Your task to perform on an android device: open chrome and create a bookmark for the current page Image 0: 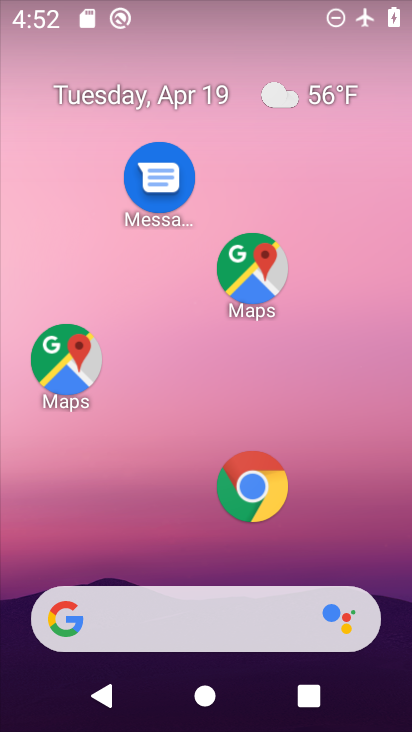
Step 0: drag from (317, 482) to (321, 77)
Your task to perform on an android device: open chrome and create a bookmark for the current page Image 1: 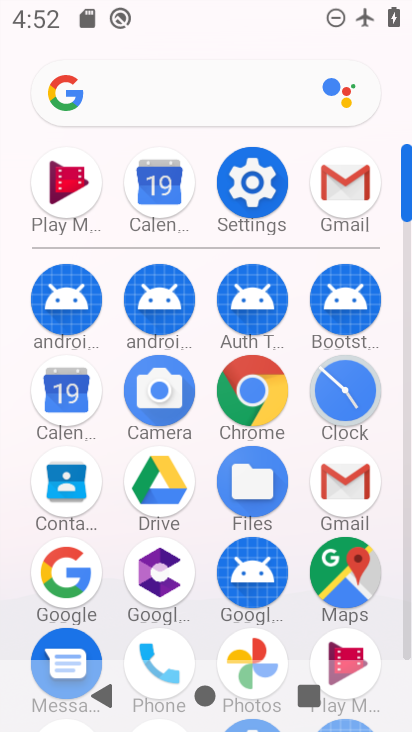
Step 1: click (261, 198)
Your task to perform on an android device: open chrome and create a bookmark for the current page Image 2: 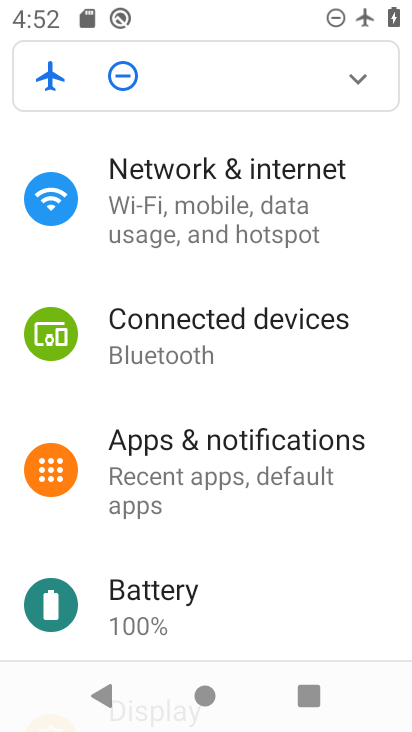
Step 2: press home button
Your task to perform on an android device: open chrome and create a bookmark for the current page Image 3: 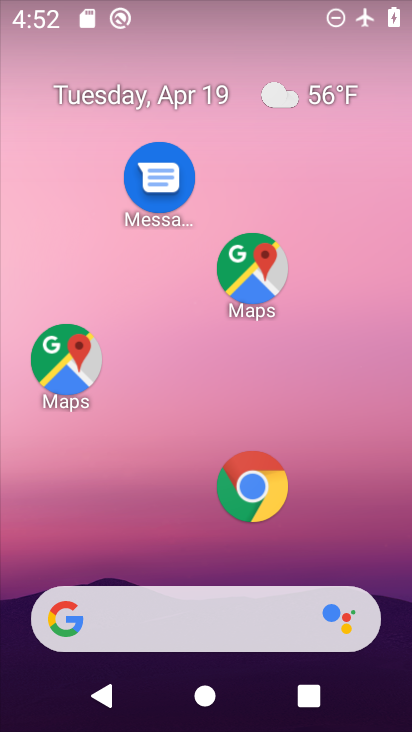
Step 3: click (256, 500)
Your task to perform on an android device: open chrome and create a bookmark for the current page Image 4: 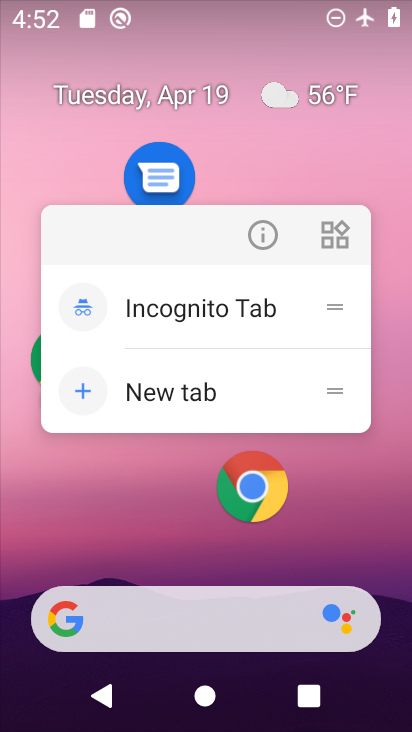
Step 4: click (268, 235)
Your task to perform on an android device: open chrome and create a bookmark for the current page Image 5: 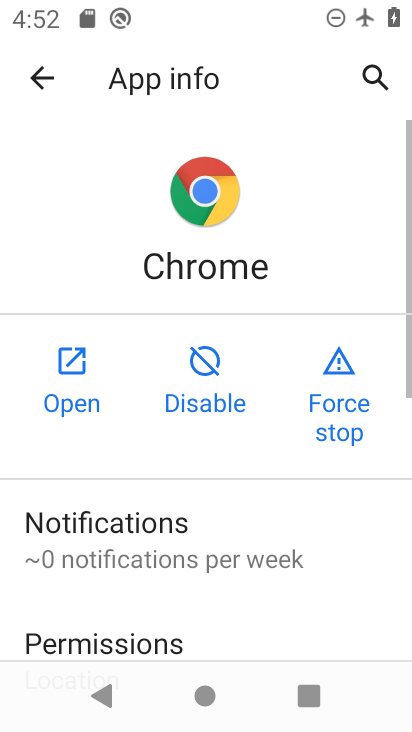
Step 5: click (78, 388)
Your task to perform on an android device: open chrome and create a bookmark for the current page Image 6: 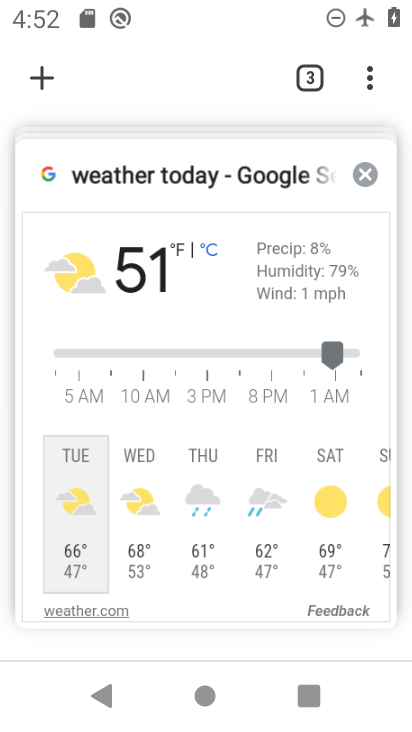
Step 6: click (236, 239)
Your task to perform on an android device: open chrome and create a bookmark for the current page Image 7: 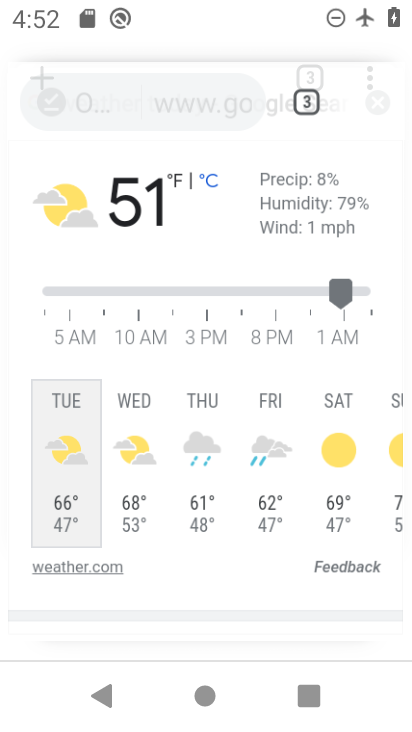
Step 7: click (376, 85)
Your task to perform on an android device: open chrome and create a bookmark for the current page Image 8: 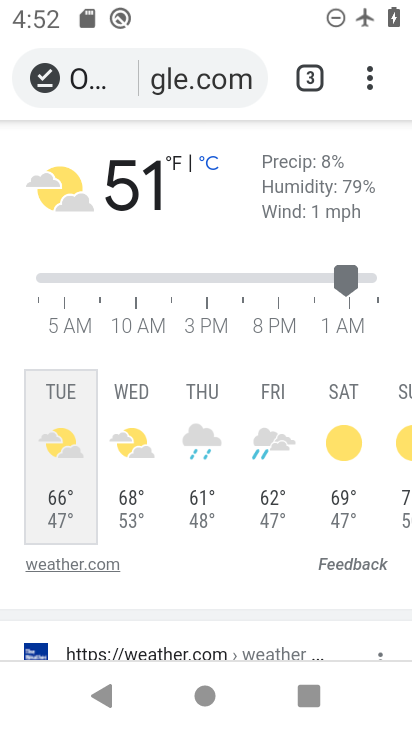
Step 8: click (375, 77)
Your task to perform on an android device: open chrome and create a bookmark for the current page Image 9: 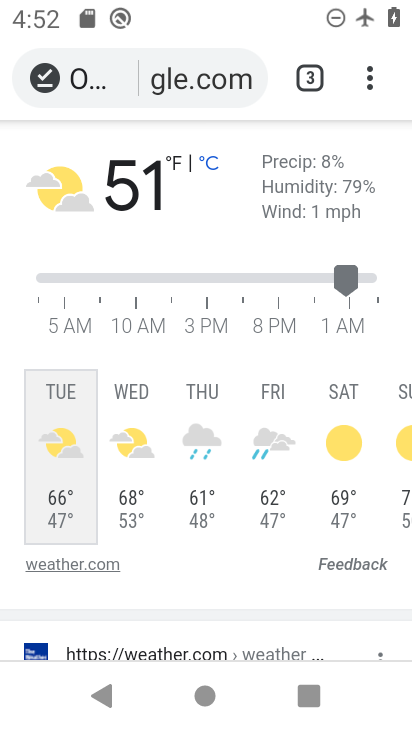
Step 9: click (369, 79)
Your task to perform on an android device: open chrome and create a bookmark for the current page Image 10: 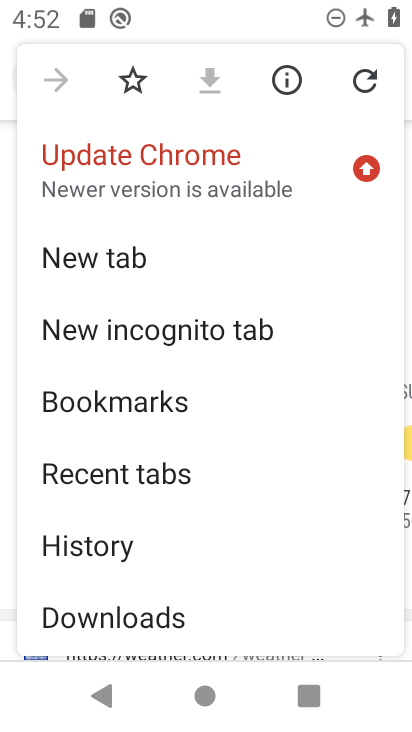
Step 10: click (139, 84)
Your task to perform on an android device: open chrome and create a bookmark for the current page Image 11: 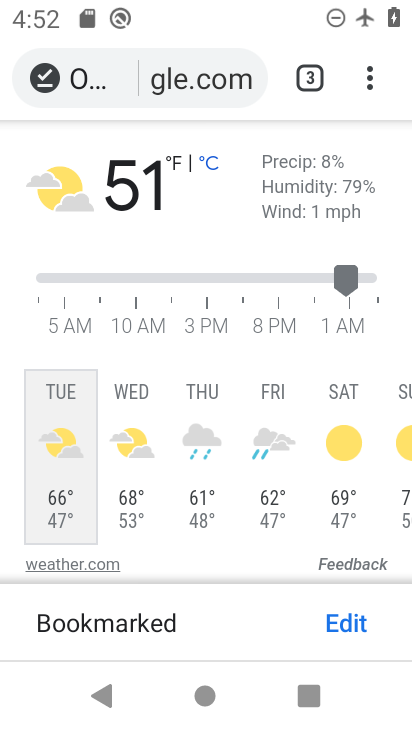
Step 11: task complete